Your task to perform on an android device: toggle notification dots Image 0: 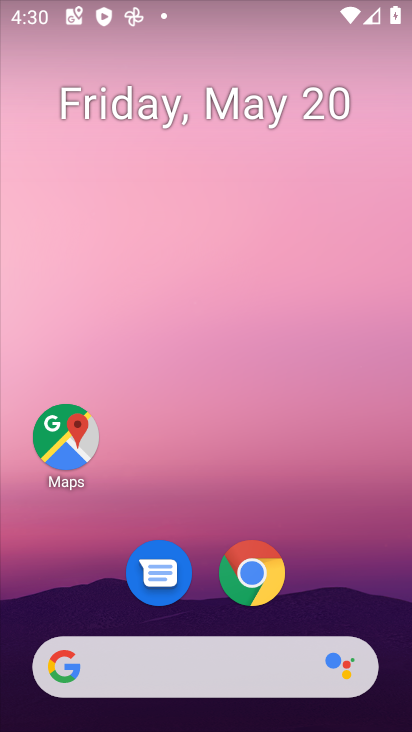
Step 0: drag from (401, 625) to (333, 98)
Your task to perform on an android device: toggle notification dots Image 1: 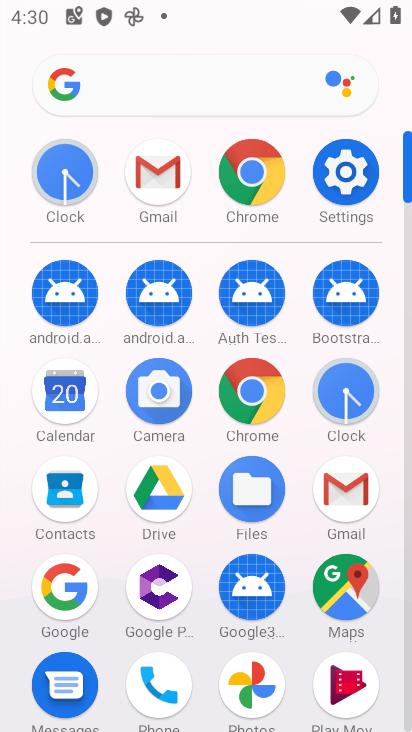
Step 1: click (409, 709)
Your task to perform on an android device: toggle notification dots Image 2: 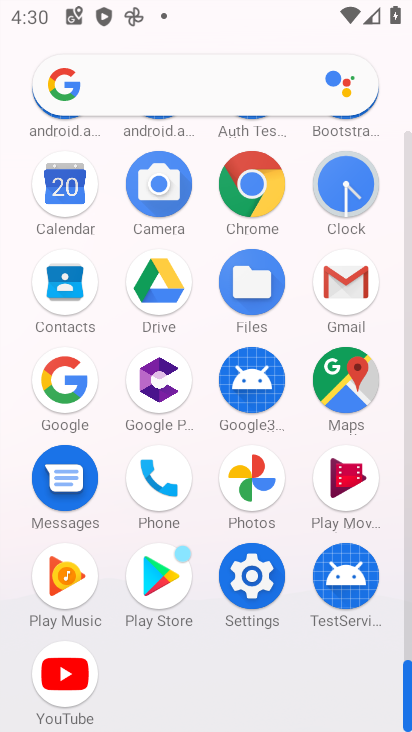
Step 2: click (249, 576)
Your task to perform on an android device: toggle notification dots Image 3: 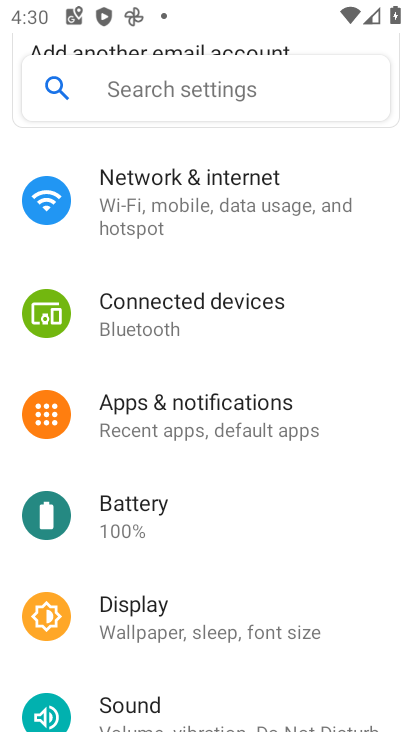
Step 3: click (157, 405)
Your task to perform on an android device: toggle notification dots Image 4: 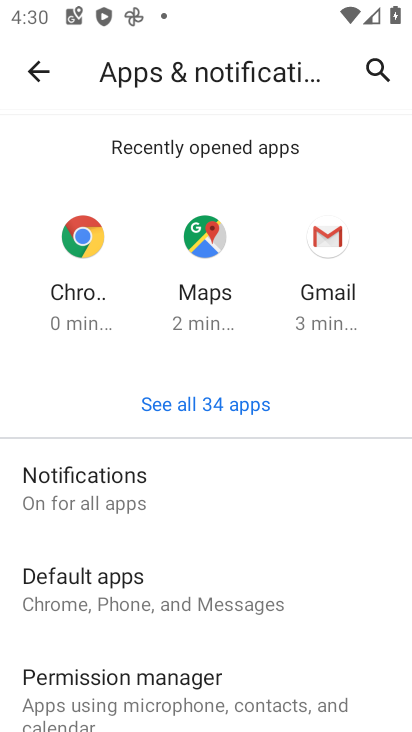
Step 4: click (103, 481)
Your task to perform on an android device: toggle notification dots Image 5: 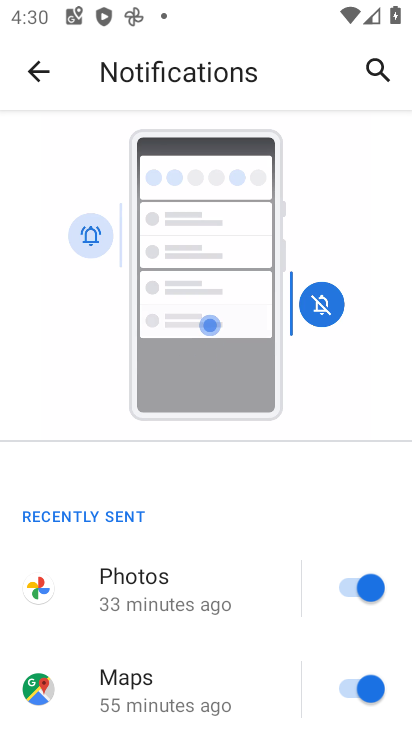
Step 5: drag from (301, 704) to (236, 147)
Your task to perform on an android device: toggle notification dots Image 6: 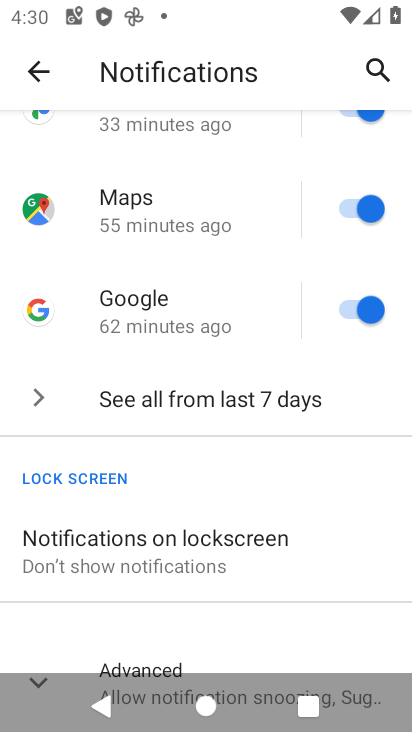
Step 6: drag from (254, 617) to (250, 165)
Your task to perform on an android device: toggle notification dots Image 7: 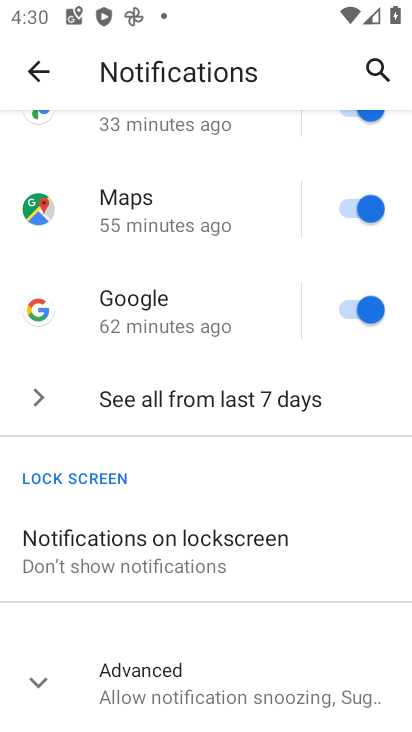
Step 7: click (34, 681)
Your task to perform on an android device: toggle notification dots Image 8: 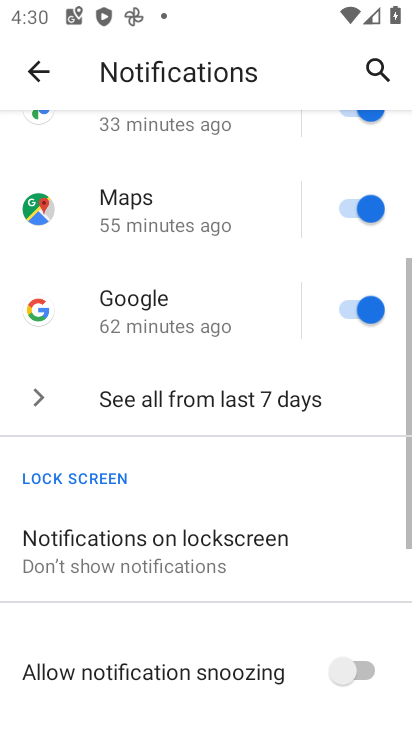
Step 8: drag from (274, 650) to (276, 146)
Your task to perform on an android device: toggle notification dots Image 9: 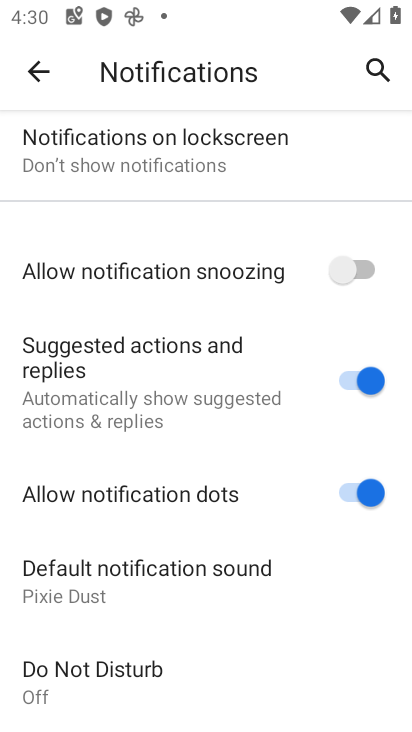
Step 9: click (340, 486)
Your task to perform on an android device: toggle notification dots Image 10: 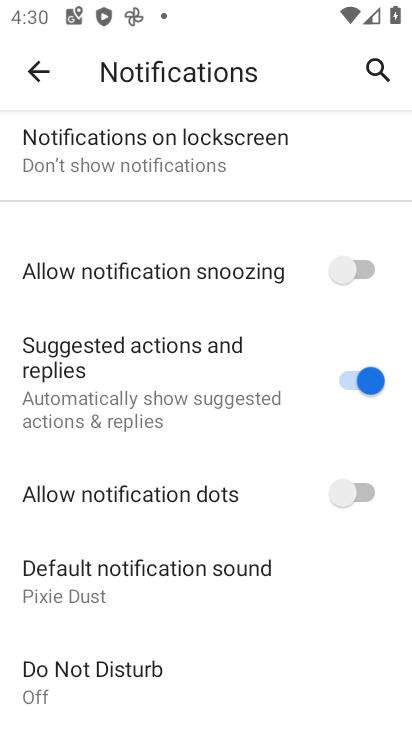
Step 10: task complete